Your task to perform on an android device: Open the phone app and click the voicemail tab. Image 0: 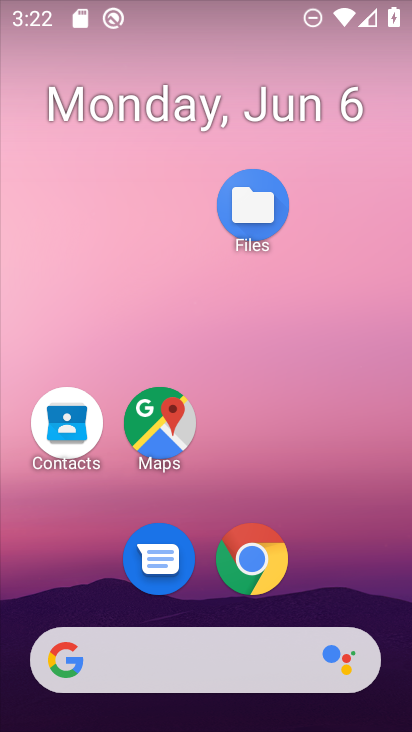
Step 0: drag from (191, 638) to (193, 22)
Your task to perform on an android device: Open the phone app and click the voicemail tab. Image 1: 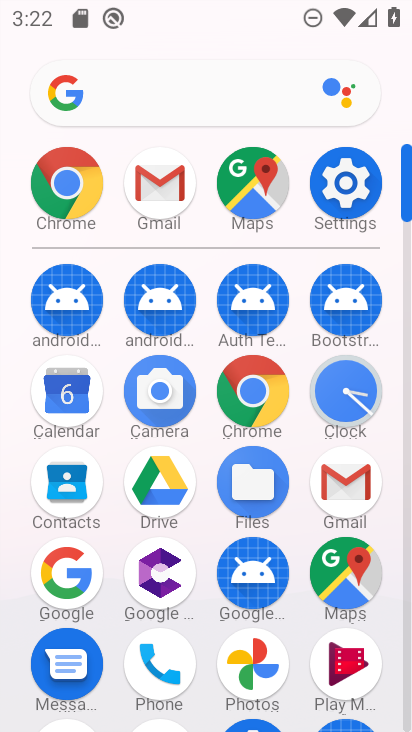
Step 1: click (164, 655)
Your task to perform on an android device: Open the phone app and click the voicemail tab. Image 2: 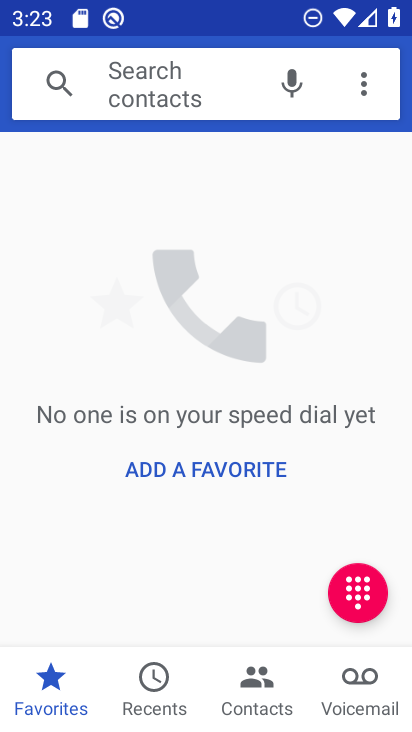
Step 2: click (350, 703)
Your task to perform on an android device: Open the phone app and click the voicemail tab. Image 3: 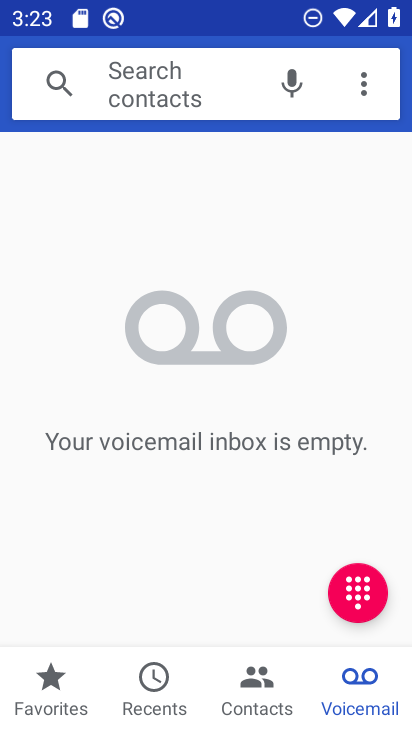
Step 3: task complete